Your task to perform on an android device: Open Chrome and go to settings Image 0: 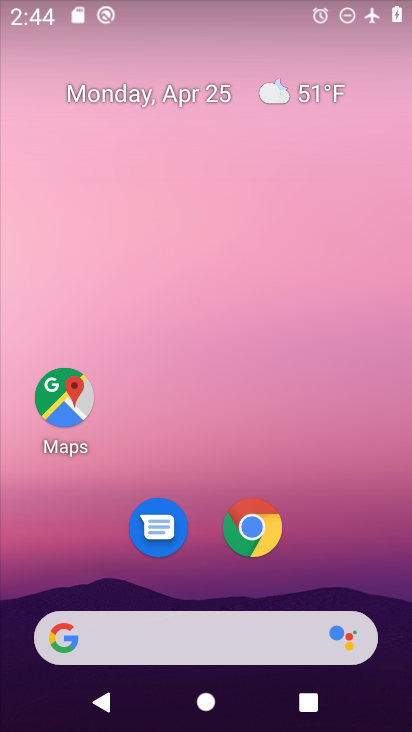
Step 0: drag from (314, 461) to (211, 34)
Your task to perform on an android device: Open Chrome and go to settings Image 1: 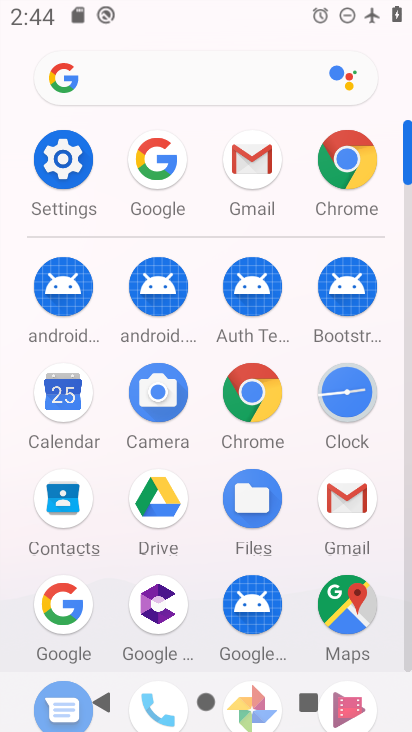
Step 1: drag from (8, 581) to (8, 331)
Your task to perform on an android device: Open Chrome and go to settings Image 2: 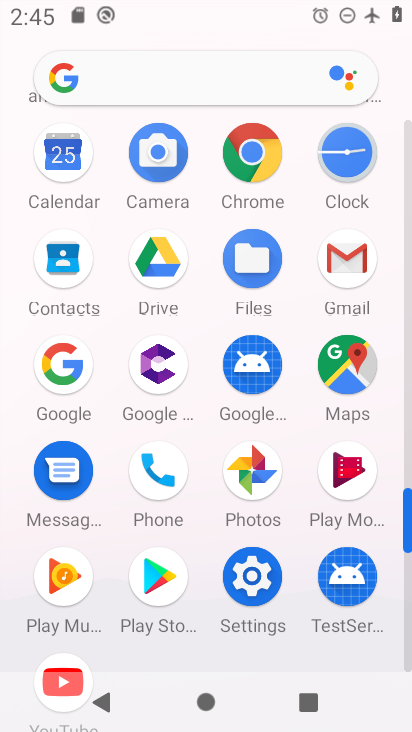
Step 2: drag from (18, 523) to (4, 206)
Your task to perform on an android device: Open Chrome and go to settings Image 3: 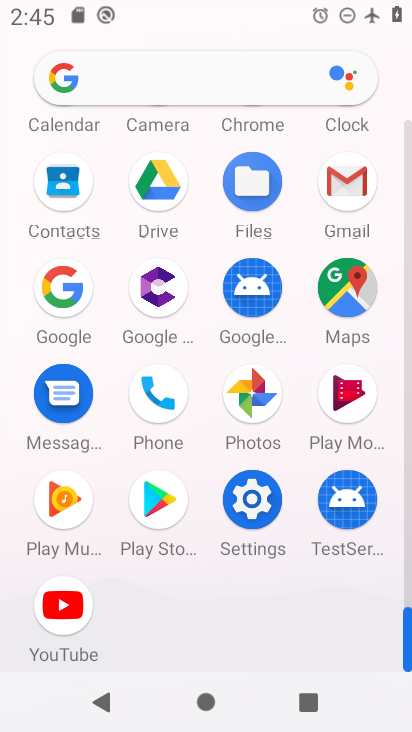
Step 3: click (252, 495)
Your task to perform on an android device: Open Chrome and go to settings Image 4: 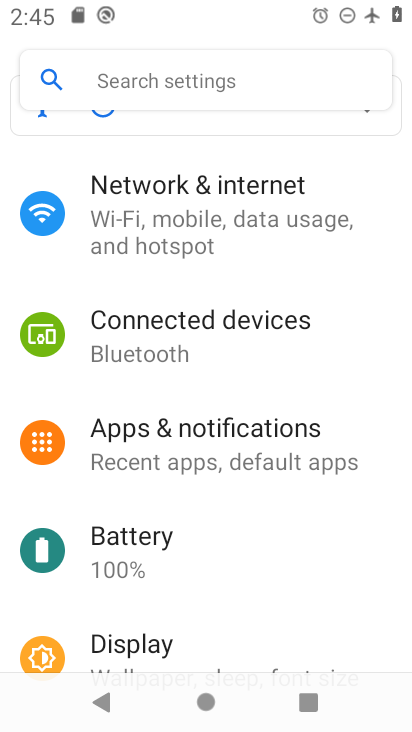
Step 4: drag from (292, 508) to (300, 195)
Your task to perform on an android device: Open Chrome and go to settings Image 5: 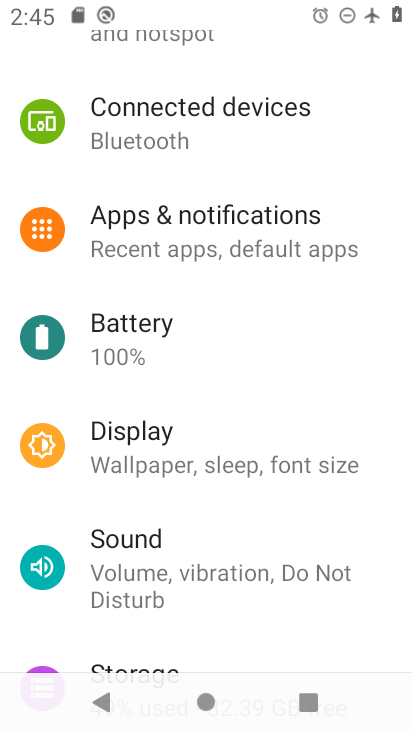
Step 5: press back button
Your task to perform on an android device: Open Chrome and go to settings Image 6: 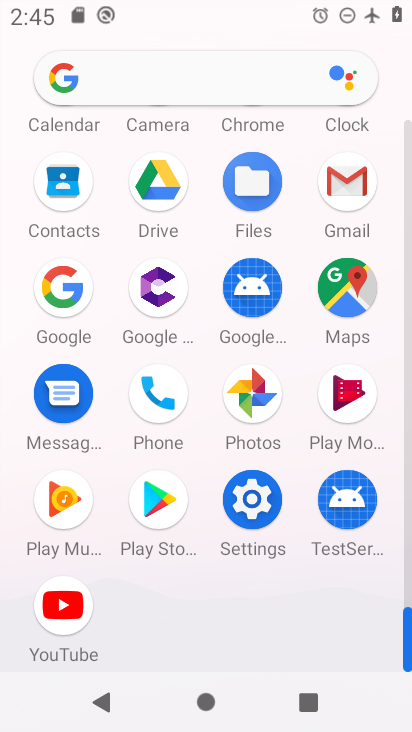
Step 6: drag from (3, 515) to (7, 244)
Your task to perform on an android device: Open Chrome and go to settings Image 7: 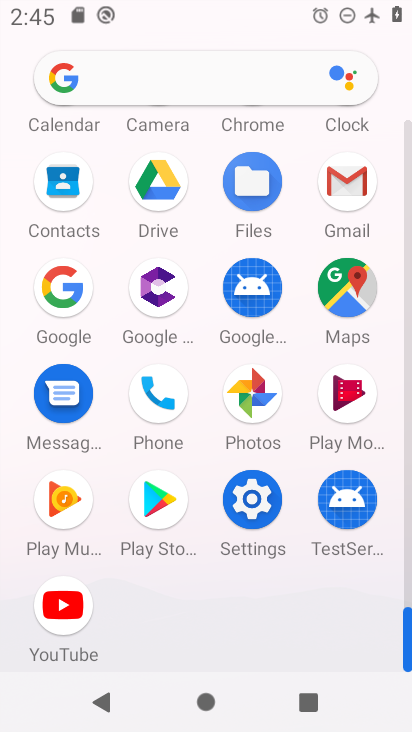
Step 7: drag from (25, 165) to (3, 580)
Your task to perform on an android device: Open Chrome and go to settings Image 8: 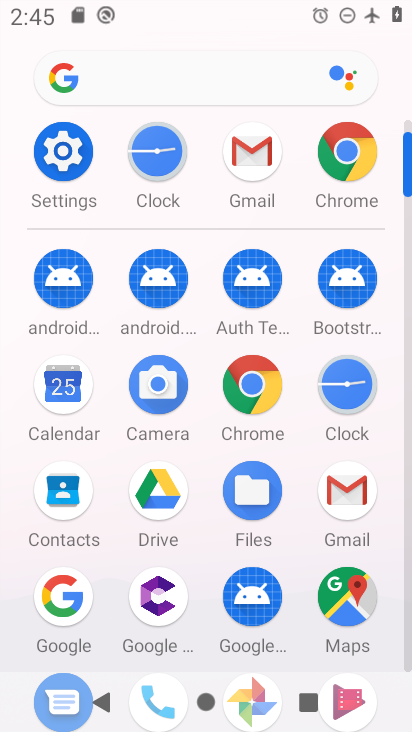
Step 8: click (255, 383)
Your task to perform on an android device: Open Chrome and go to settings Image 9: 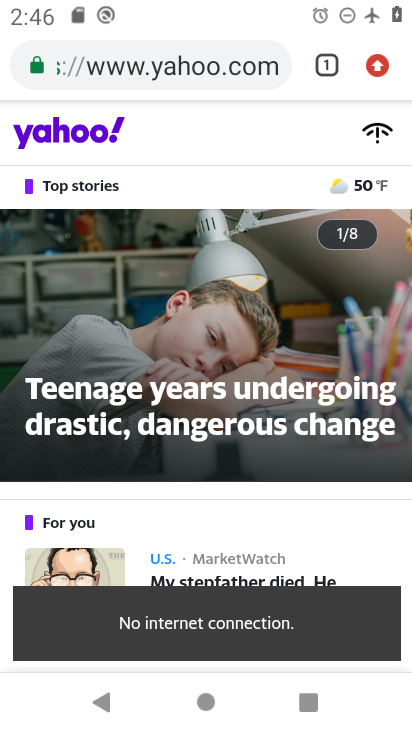
Step 9: task complete